Your task to perform on an android device: Search for seafood restaurants on Google Maps Image 0: 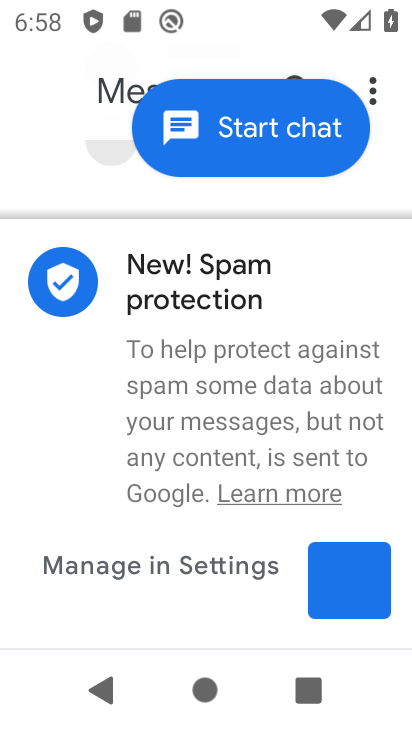
Step 0: press home button
Your task to perform on an android device: Search for seafood restaurants on Google Maps Image 1: 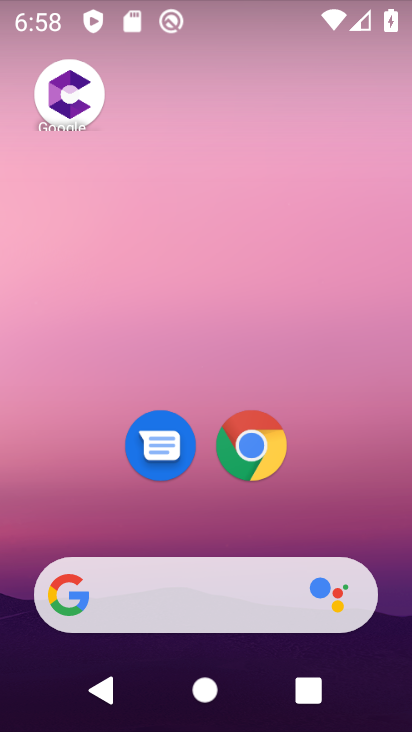
Step 1: drag from (315, 481) to (164, 21)
Your task to perform on an android device: Search for seafood restaurants on Google Maps Image 2: 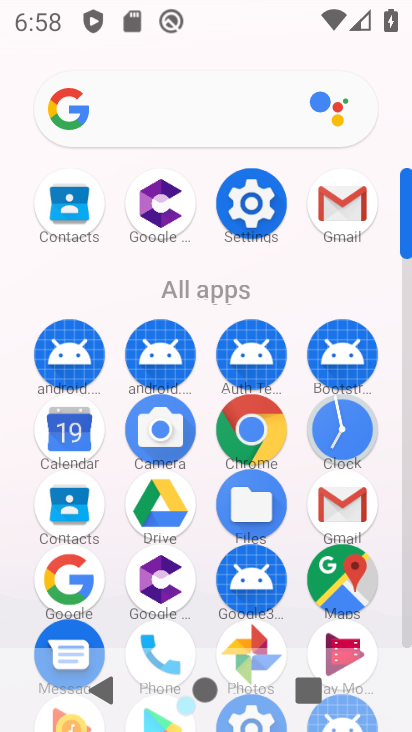
Step 2: click (344, 574)
Your task to perform on an android device: Search for seafood restaurants on Google Maps Image 3: 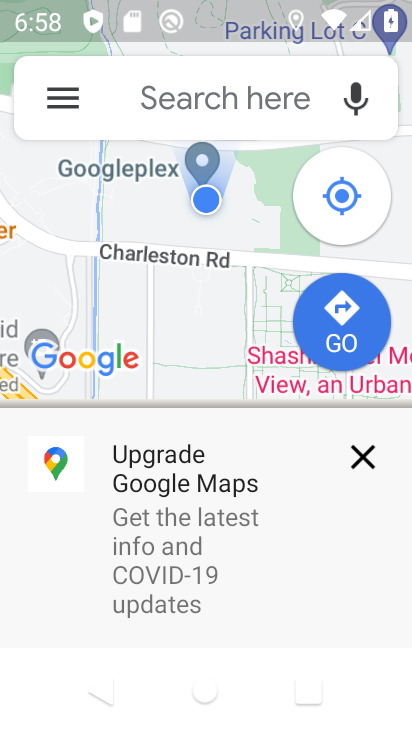
Step 3: click (129, 102)
Your task to perform on an android device: Search for seafood restaurants on Google Maps Image 4: 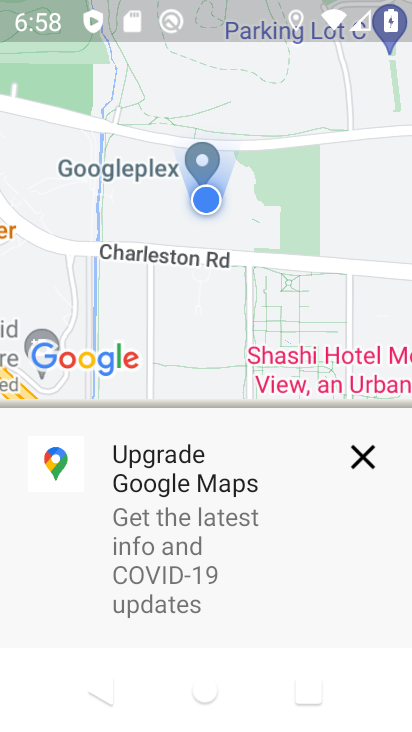
Step 4: click (365, 457)
Your task to perform on an android device: Search for seafood restaurants on Google Maps Image 5: 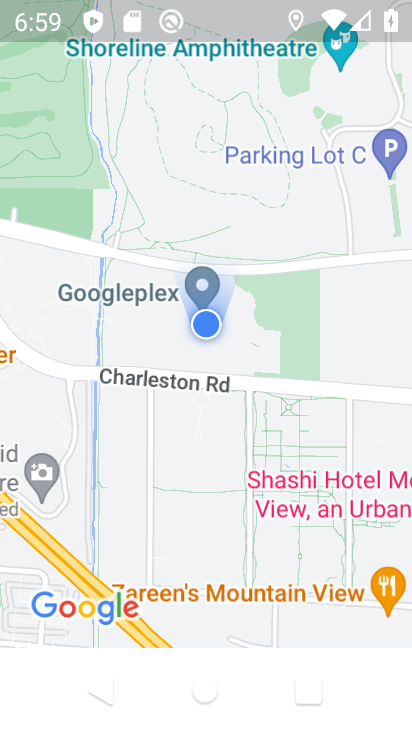
Step 5: press back button
Your task to perform on an android device: Search for seafood restaurants on Google Maps Image 6: 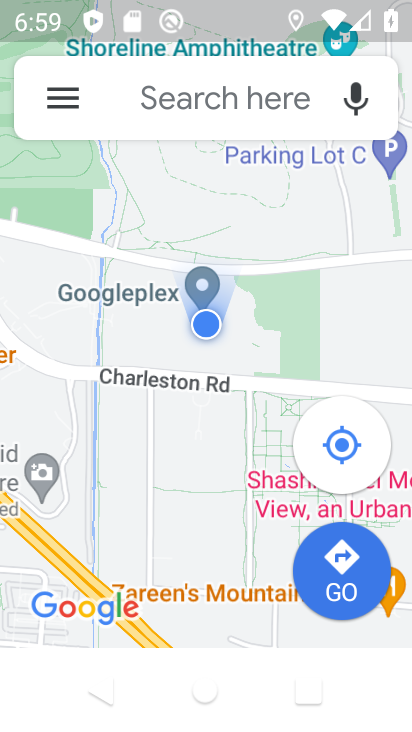
Step 6: click (138, 87)
Your task to perform on an android device: Search for seafood restaurants on Google Maps Image 7: 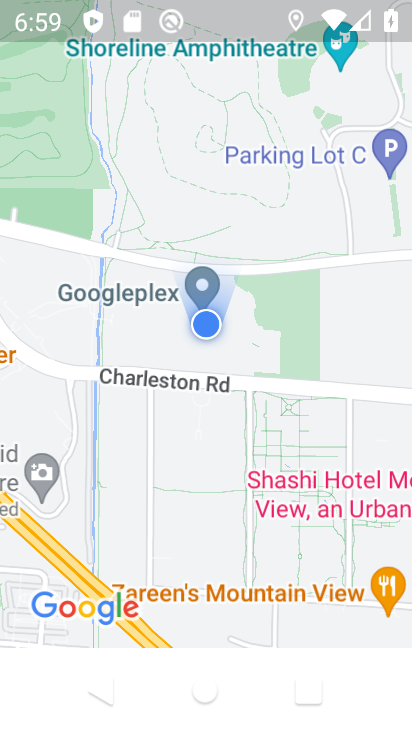
Step 7: drag from (156, 112) to (327, 715)
Your task to perform on an android device: Search for seafood restaurants on Google Maps Image 8: 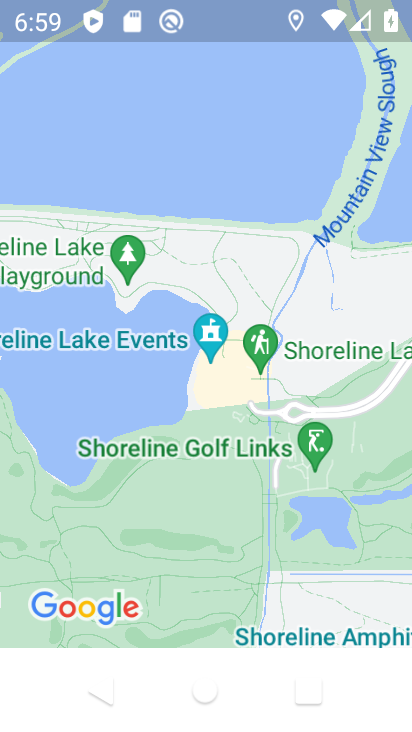
Step 8: press home button
Your task to perform on an android device: Search for seafood restaurants on Google Maps Image 9: 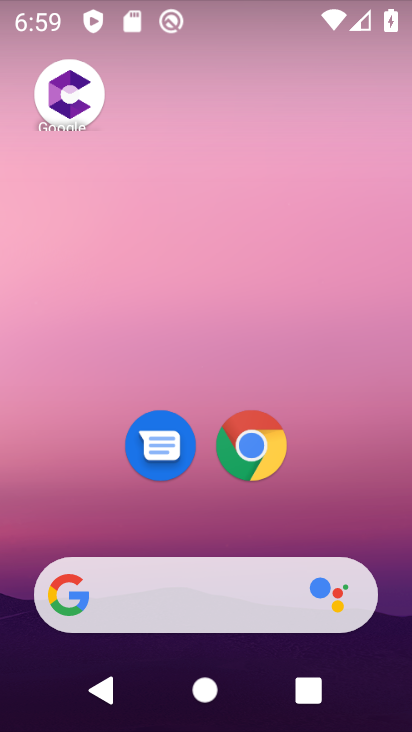
Step 9: drag from (312, 514) to (271, 60)
Your task to perform on an android device: Search for seafood restaurants on Google Maps Image 10: 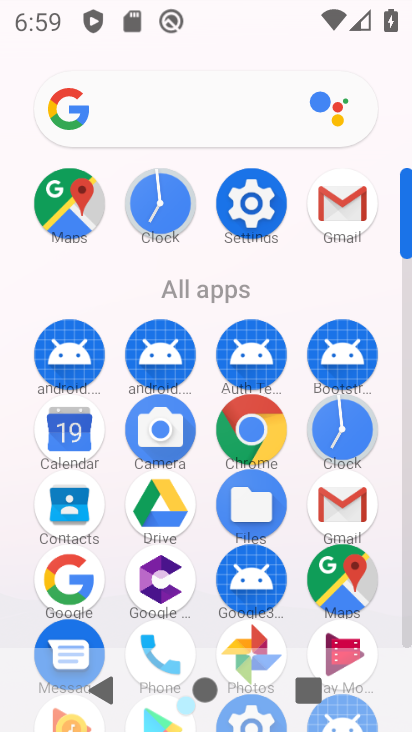
Step 10: click (336, 575)
Your task to perform on an android device: Search for seafood restaurants on Google Maps Image 11: 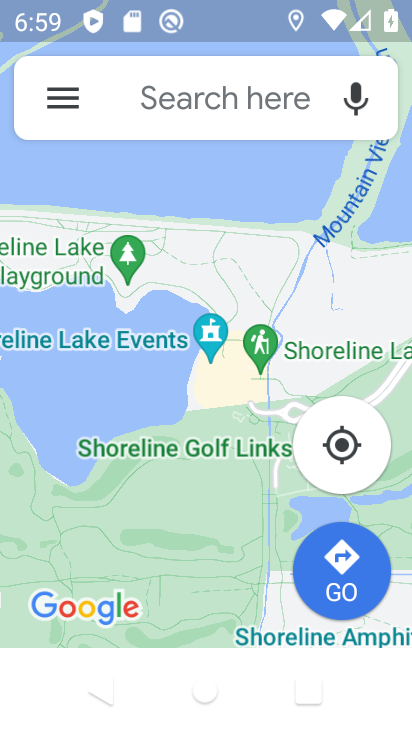
Step 11: click (160, 98)
Your task to perform on an android device: Search for seafood restaurants on Google Maps Image 12: 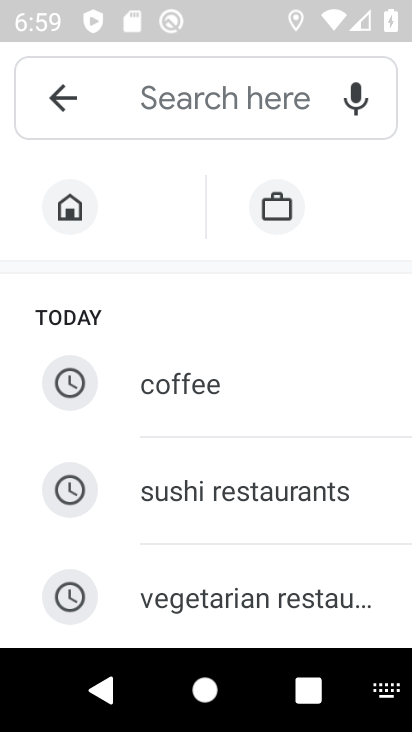
Step 12: type "seafood restaurants"
Your task to perform on an android device: Search for seafood restaurants on Google Maps Image 13: 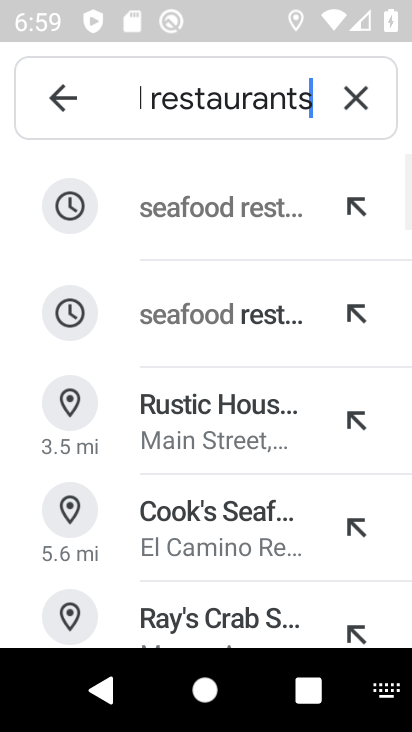
Step 13: click (211, 213)
Your task to perform on an android device: Search for seafood restaurants on Google Maps Image 14: 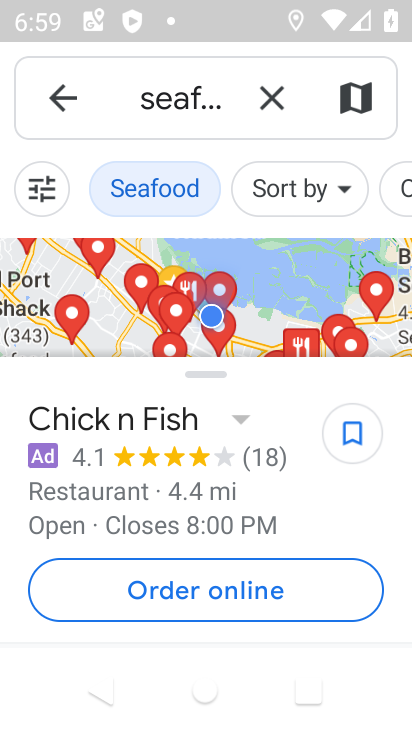
Step 14: task complete